Your task to perform on an android device: Search for sushi restaurants on Maps Image 0: 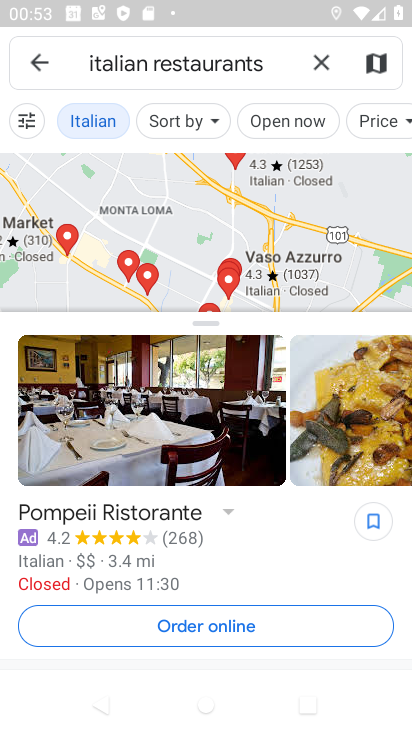
Step 0: click (320, 65)
Your task to perform on an android device: Search for sushi restaurants on Maps Image 1: 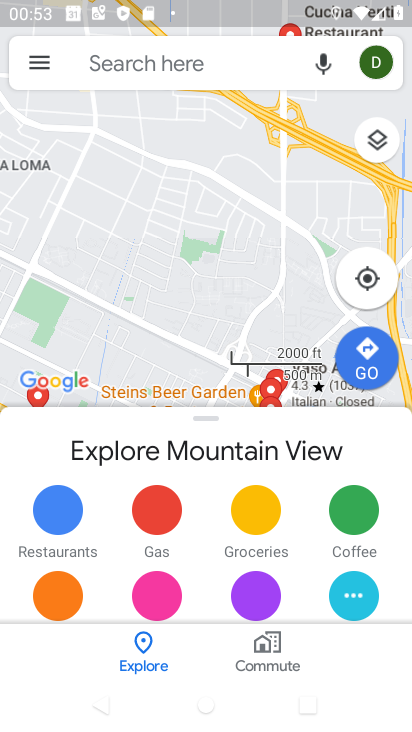
Step 1: click (233, 63)
Your task to perform on an android device: Search for sushi restaurants on Maps Image 2: 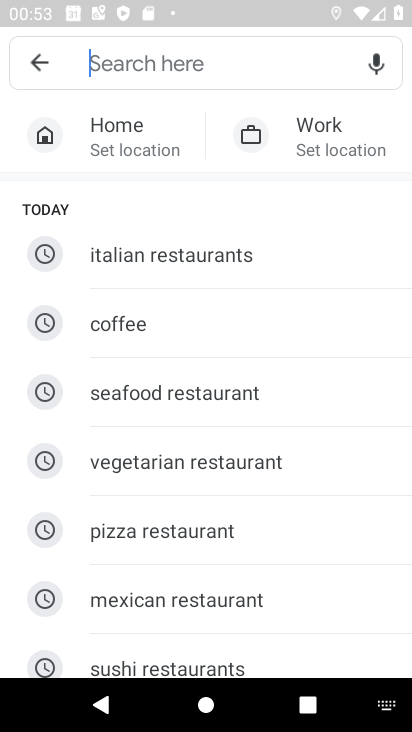
Step 2: type "sushi restaurants"
Your task to perform on an android device: Search for sushi restaurants on Maps Image 3: 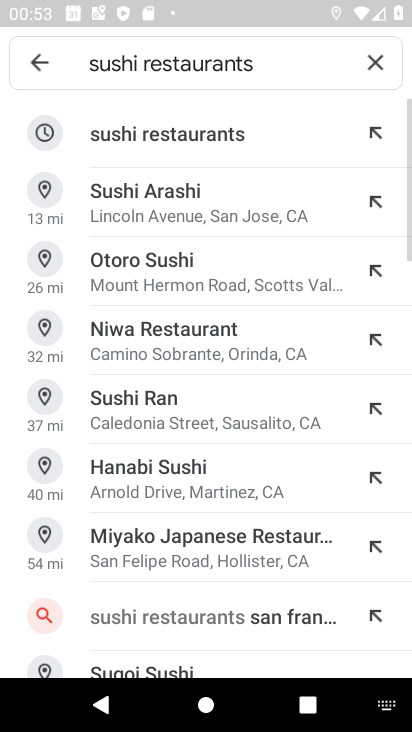
Step 3: click (168, 140)
Your task to perform on an android device: Search for sushi restaurants on Maps Image 4: 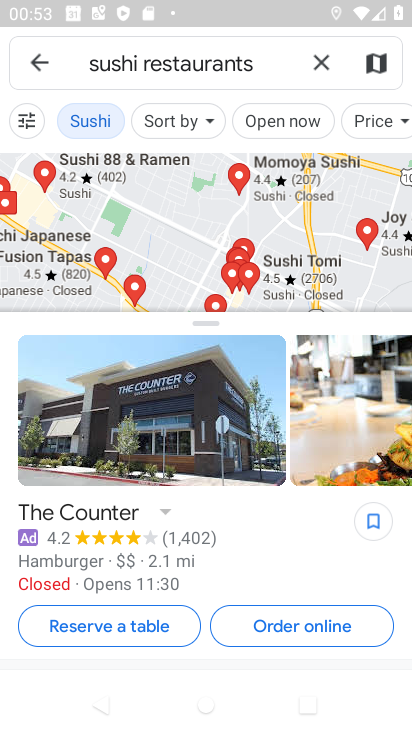
Step 4: task complete